Your task to perform on an android device: Go to Google Image 0: 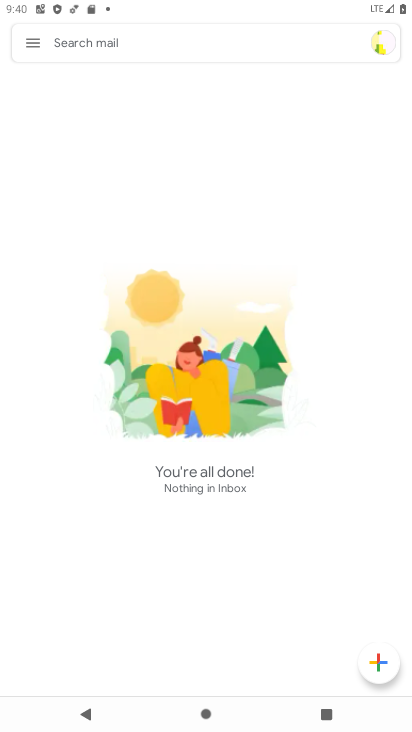
Step 0: press home button
Your task to perform on an android device: Go to Google Image 1: 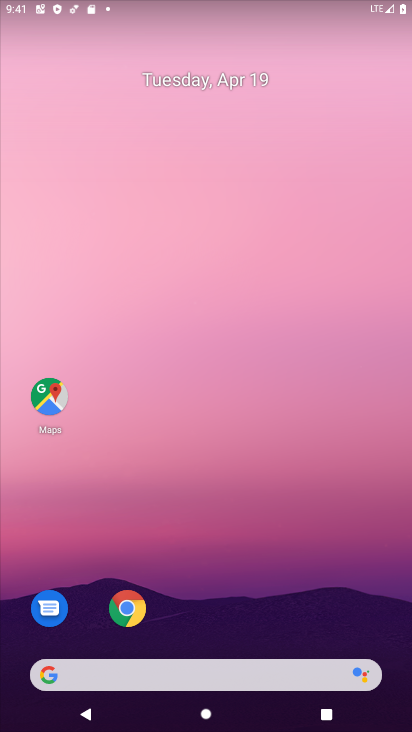
Step 1: click (125, 607)
Your task to perform on an android device: Go to Google Image 2: 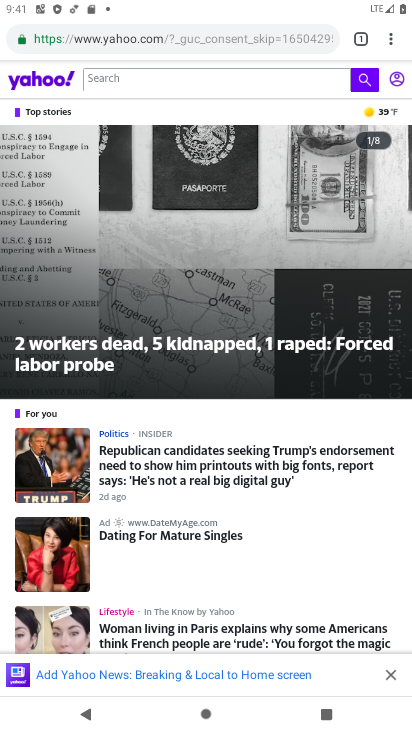
Step 2: click (389, 35)
Your task to perform on an android device: Go to Google Image 3: 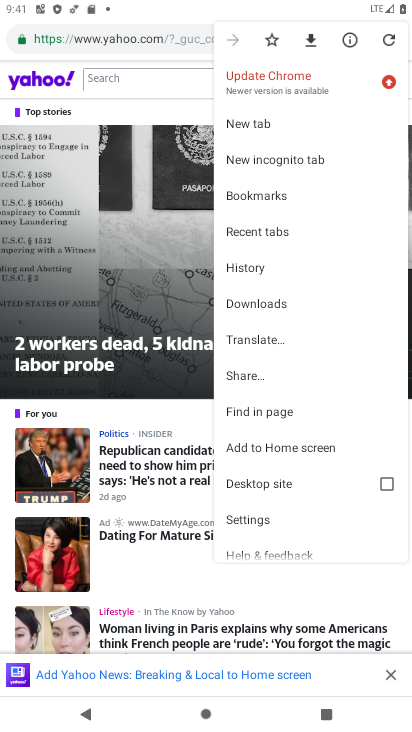
Step 3: click (247, 124)
Your task to perform on an android device: Go to Google Image 4: 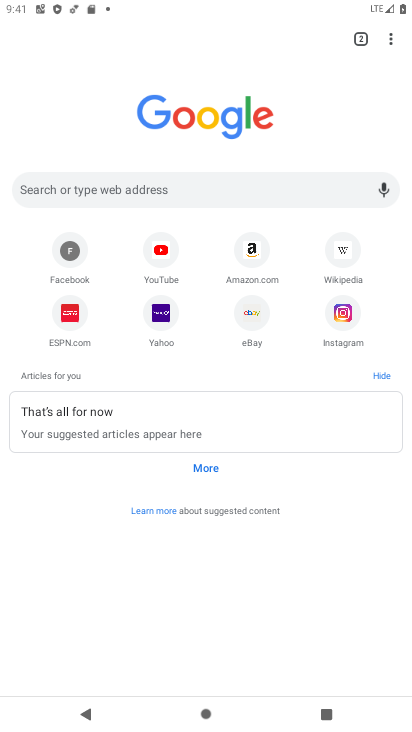
Step 4: task complete